Your task to perform on an android device: uninstall "Google Translate" Image 0: 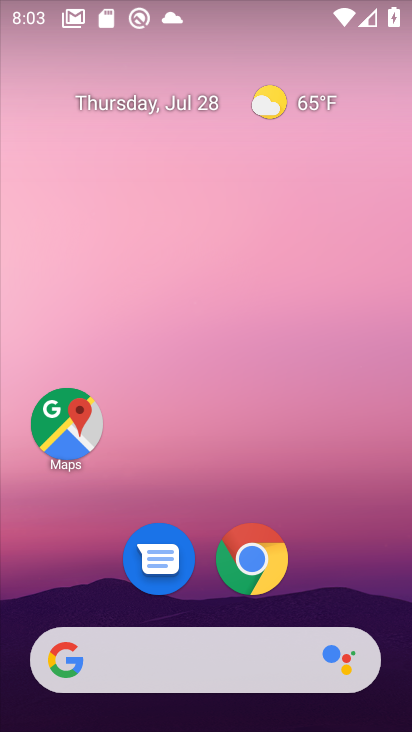
Step 0: drag from (203, 580) to (180, 8)
Your task to perform on an android device: uninstall "Google Translate" Image 1: 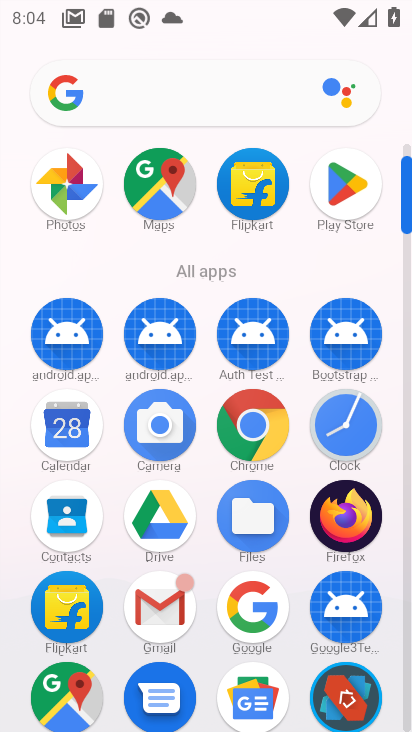
Step 1: drag from (230, 568) to (215, 426)
Your task to perform on an android device: uninstall "Google Translate" Image 2: 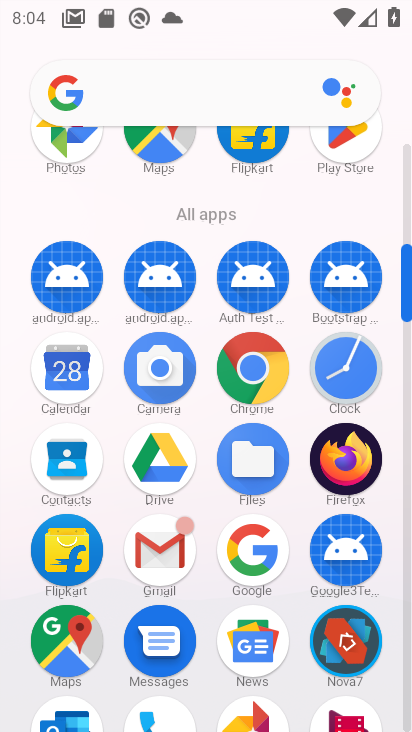
Step 2: click (358, 166)
Your task to perform on an android device: uninstall "Google Translate" Image 3: 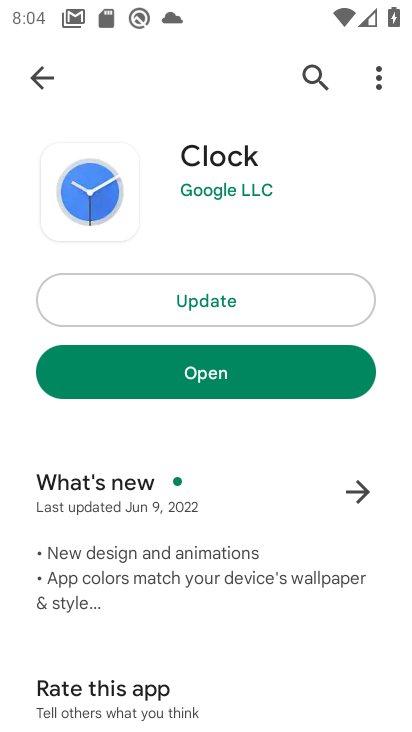
Step 3: click (28, 73)
Your task to perform on an android device: uninstall "Google Translate" Image 4: 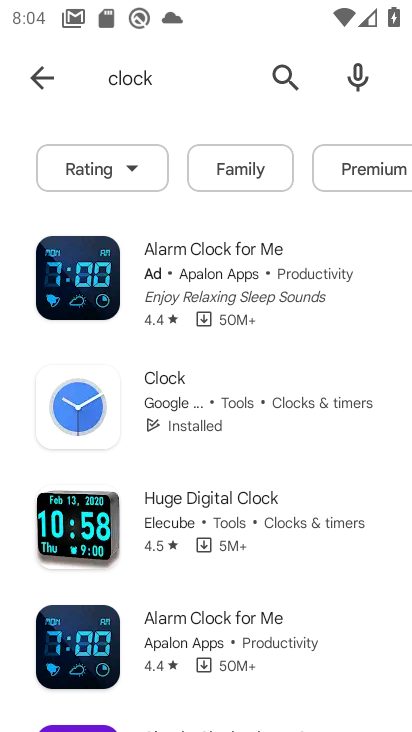
Step 4: click (162, 77)
Your task to perform on an android device: uninstall "Google Translate" Image 5: 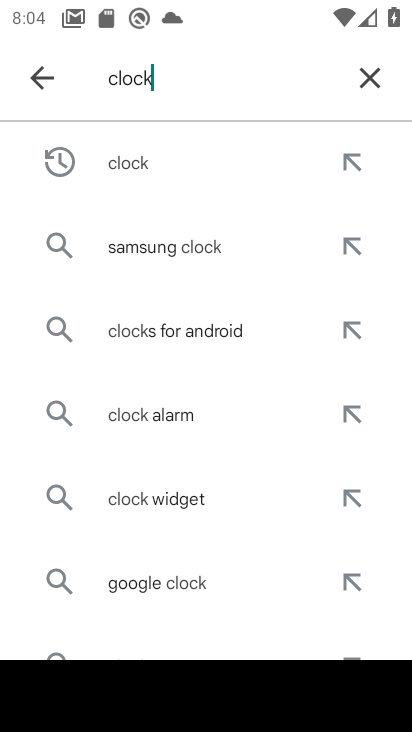
Step 5: click (379, 74)
Your task to perform on an android device: uninstall "Google Translate" Image 6: 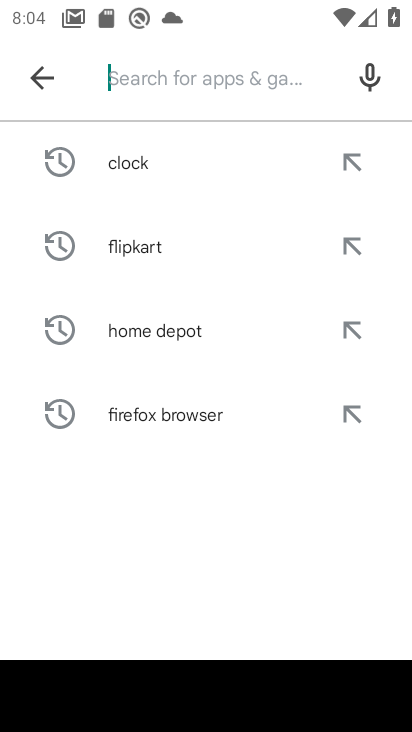
Step 6: type "google translate"
Your task to perform on an android device: uninstall "Google Translate" Image 7: 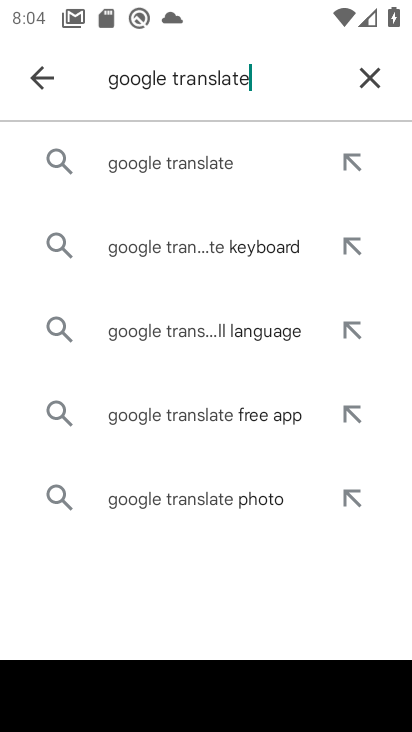
Step 7: click (134, 181)
Your task to perform on an android device: uninstall "Google Translate" Image 8: 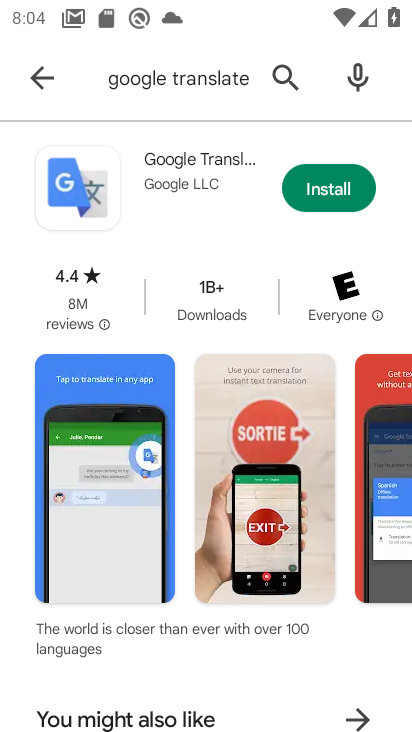
Step 8: task complete